Your task to perform on an android device: Open notification settings Image 0: 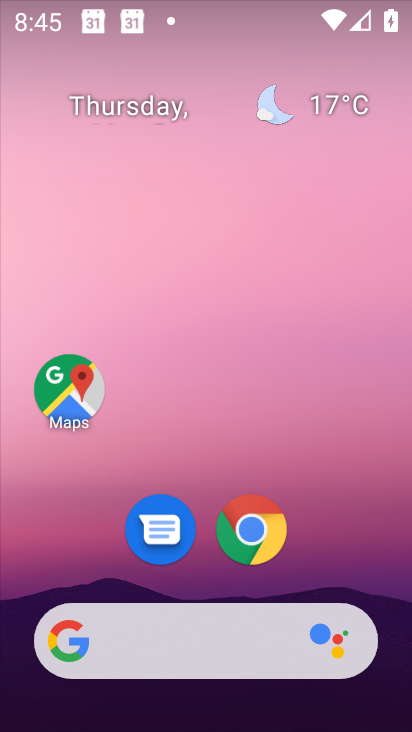
Step 0: drag from (337, 551) to (266, 124)
Your task to perform on an android device: Open notification settings Image 1: 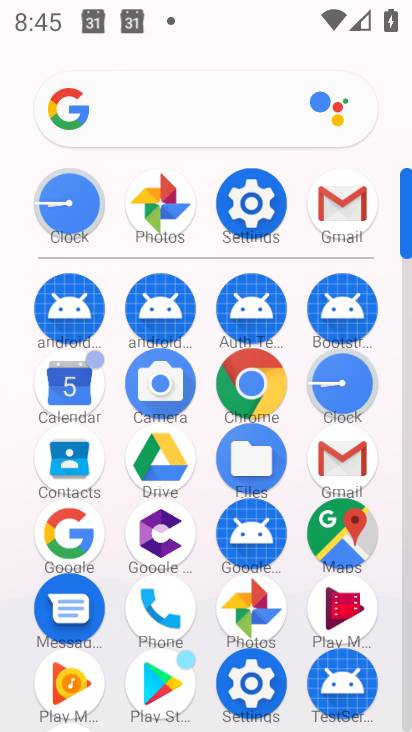
Step 1: click (247, 195)
Your task to perform on an android device: Open notification settings Image 2: 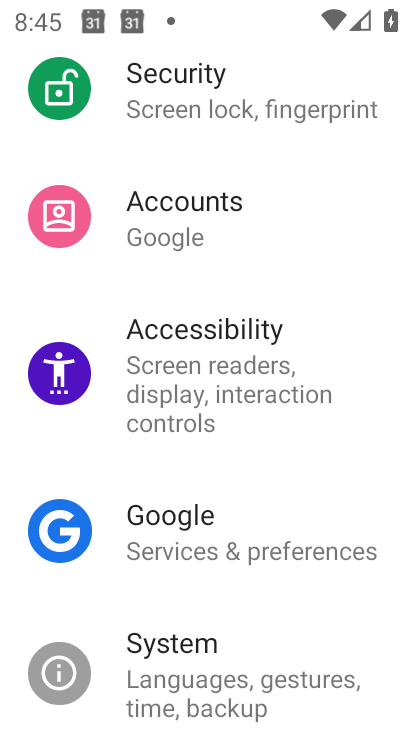
Step 2: drag from (285, 259) to (281, 694)
Your task to perform on an android device: Open notification settings Image 3: 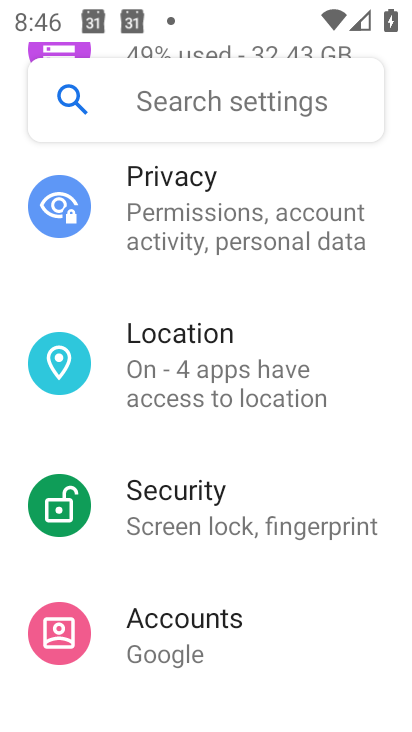
Step 3: drag from (288, 305) to (349, 678)
Your task to perform on an android device: Open notification settings Image 4: 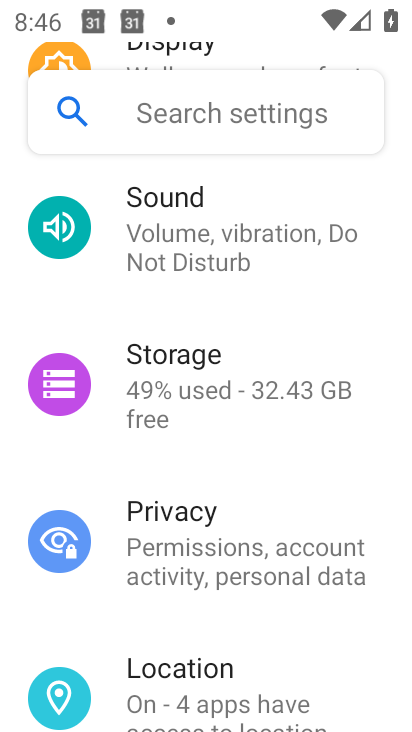
Step 4: drag from (257, 294) to (283, 710)
Your task to perform on an android device: Open notification settings Image 5: 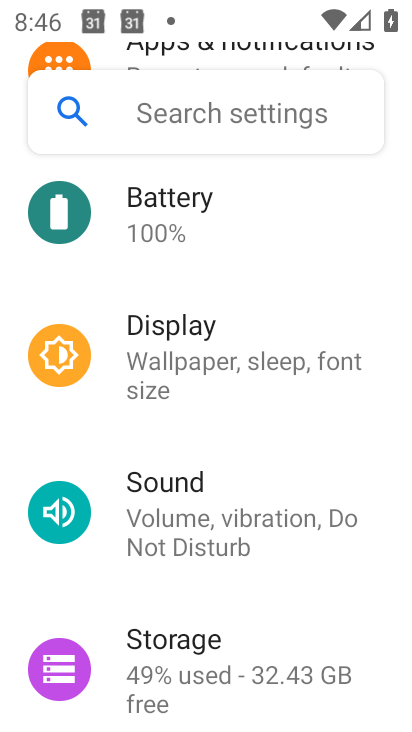
Step 5: drag from (235, 289) to (230, 727)
Your task to perform on an android device: Open notification settings Image 6: 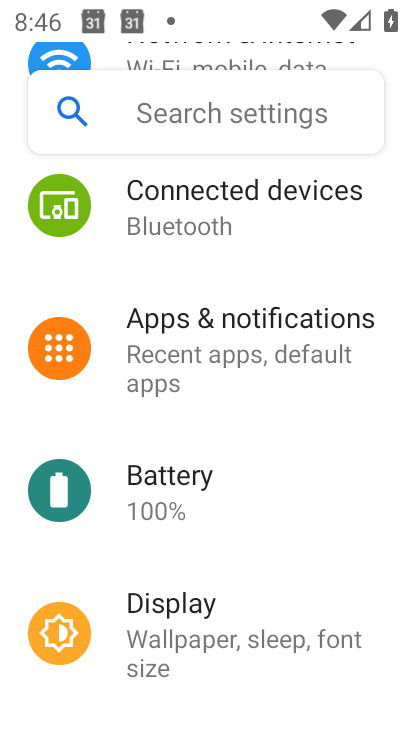
Step 6: click (202, 312)
Your task to perform on an android device: Open notification settings Image 7: 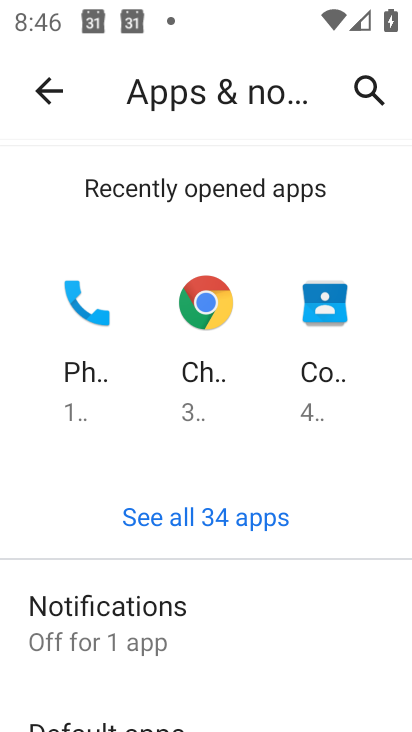
Step 7: task complete